Your task to perform on an android device: Open privacy settings Image 0: 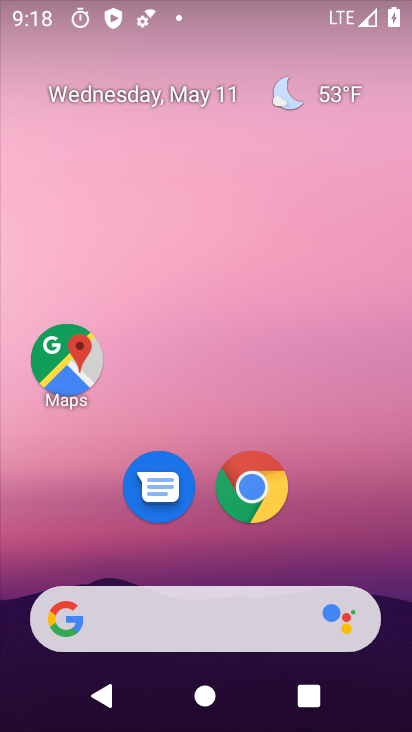
Step 0: drag from (328, 537) to (265, 47)
Your task to perform on an android device: Open privacy settings Image 1: 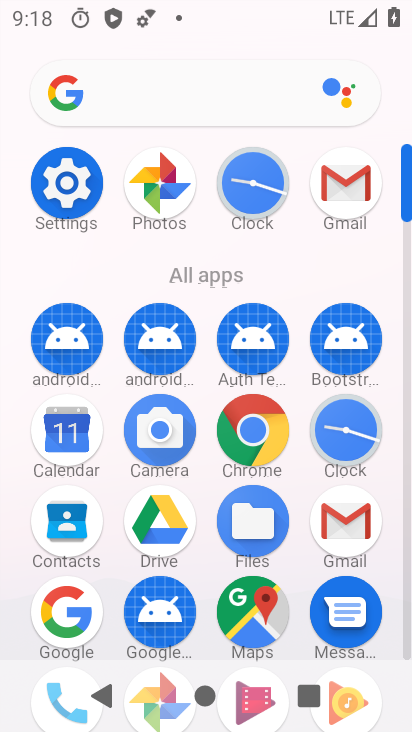
Step 1: click (66, 182)
Your task to perform on an android device: Open privacy settings Image 2: 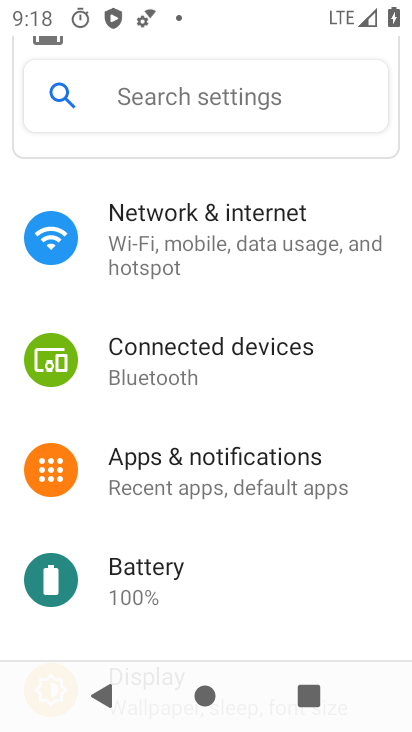
Step 2: drag from (175, 513) to (209, 376)
Your task to perform on an android device: Open privacy settings Image 3: 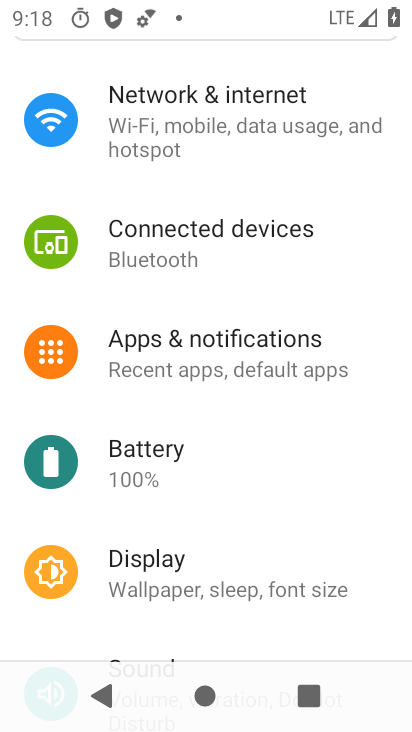
Step 3: drag from (177, 487) to (196, 369)
Your task to perform on an android device: Open privacy settings Image 4: 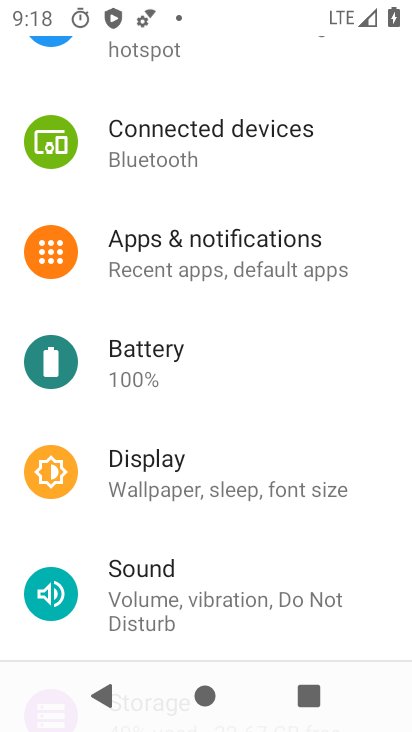
Step 4: drag from (169, 502) to (228, 341)
Your task to perform on an android device: Open privacy settings Image 5: 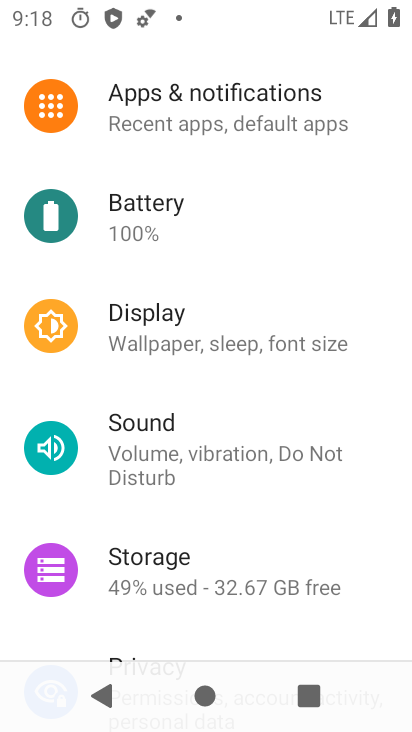
Step 5: drag from (166, 485) to (269, 332)
Your task to perform on an android device: Open privacy settings Image 6: 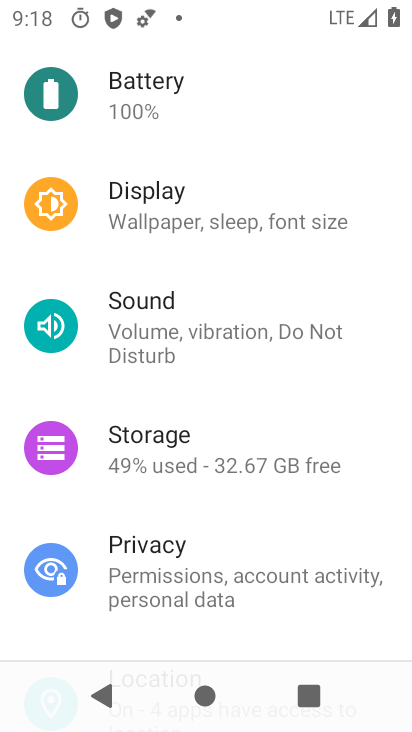
Step 6: click (152, 546)
Your task to perform on an android device: Open privacy settings Image 7: 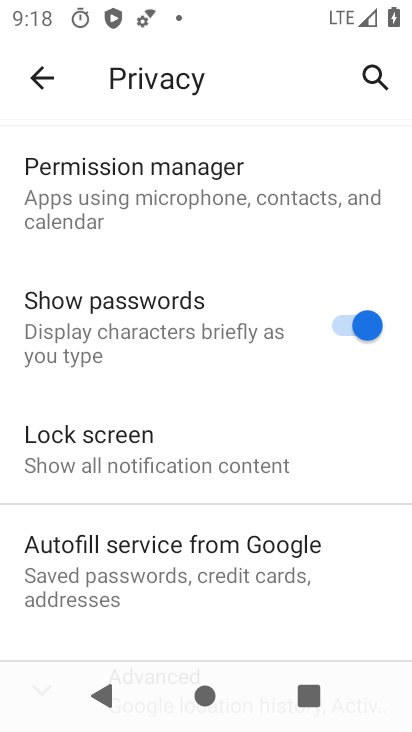
Step 7: task complete